Your task to perform on an android device: Go to calendar. Show me events next week Image 0: 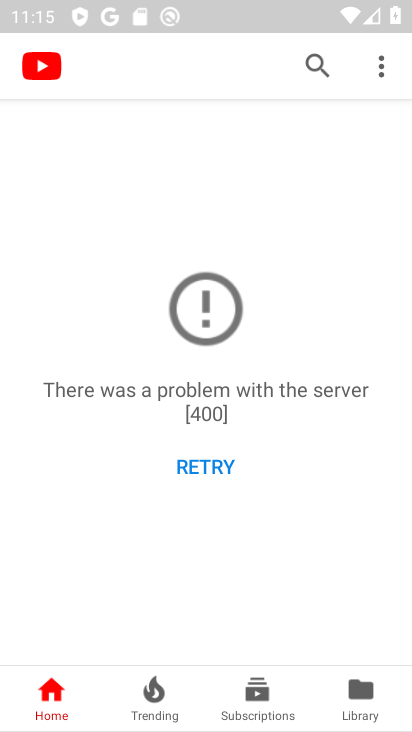
Step 0: press home button
Your task to perform on an android device: Go to calendar. Show me events next week Image 1: 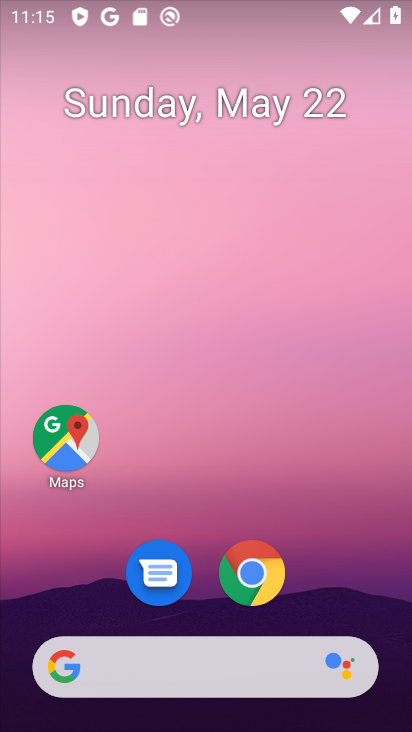
Step 1: drag from (146, 656) to (314, 83)
Your task to perform on an android device: Go to calendar. Show me events next week Image 2: 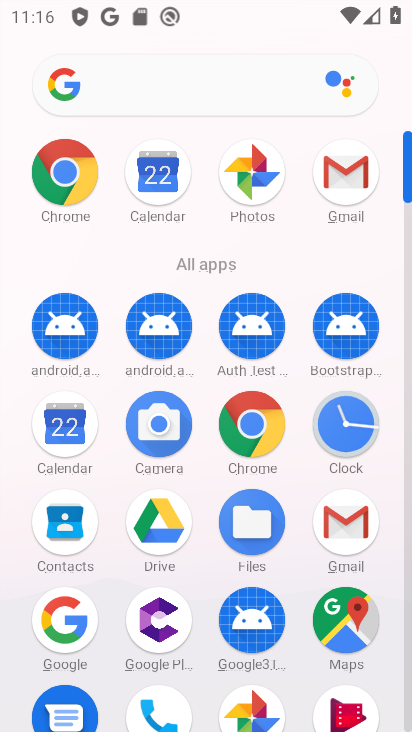
Step 2: click (153, 182)
Your task to perform on an android device: Go to calendar. Show me events next week Image 3: 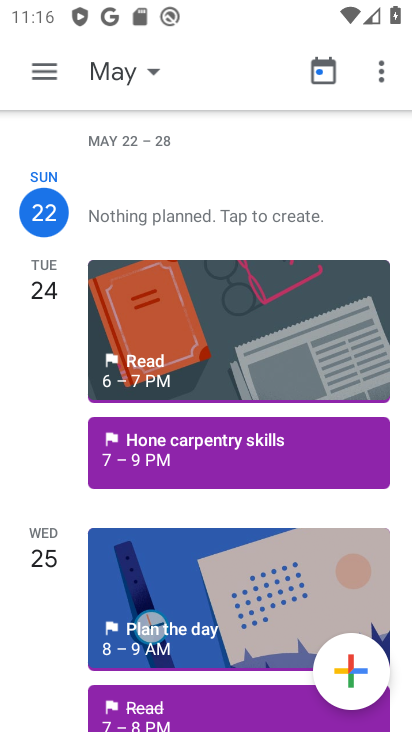
Step 3: click (119, 72)
Your task to perform on an android device: Go to calendar. Show me events next week Image 4: 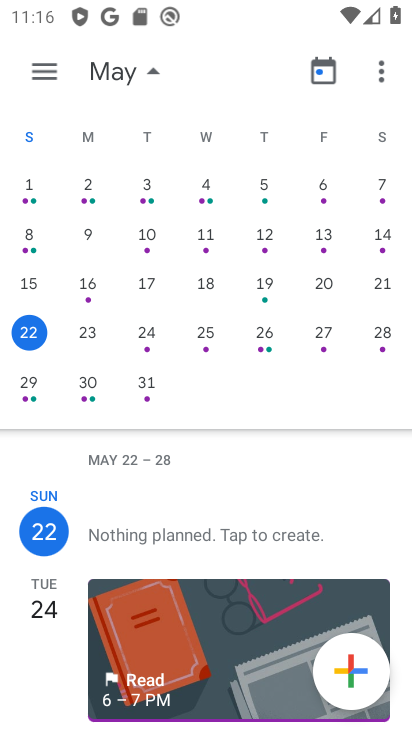
Step 4: click (34, 385)
Your task to perform on an android device: Go to calendar. Show me events next week Image 5: 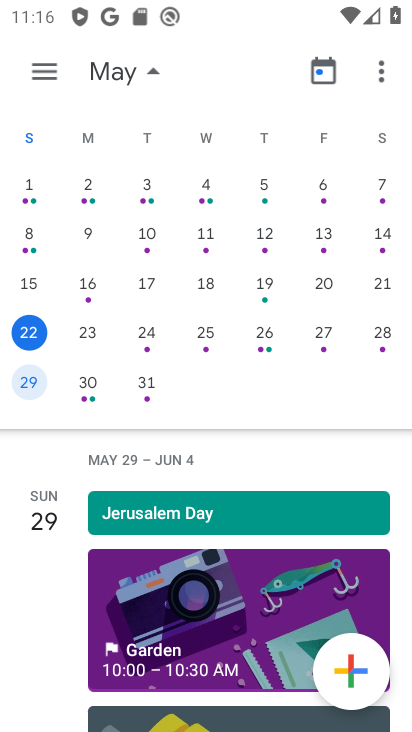
Step 5: click (52, 68)
Your task to perform on an android device: Go to calendar. Show me events next week Image 6: 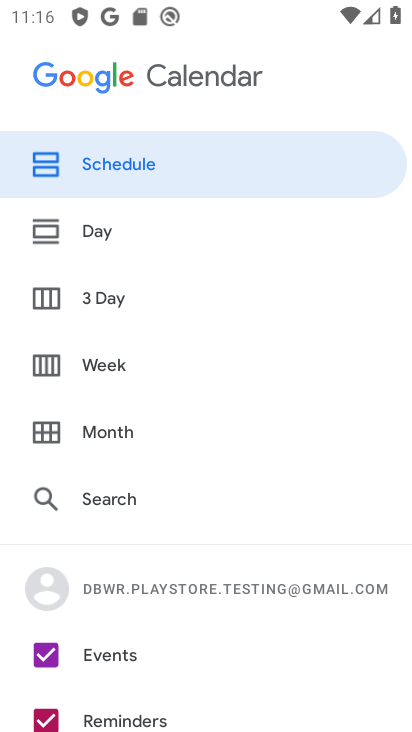
Step 6: click (100, 367)
Your task to perform on an android device: Go to calendar. Show me events next week Image 7: 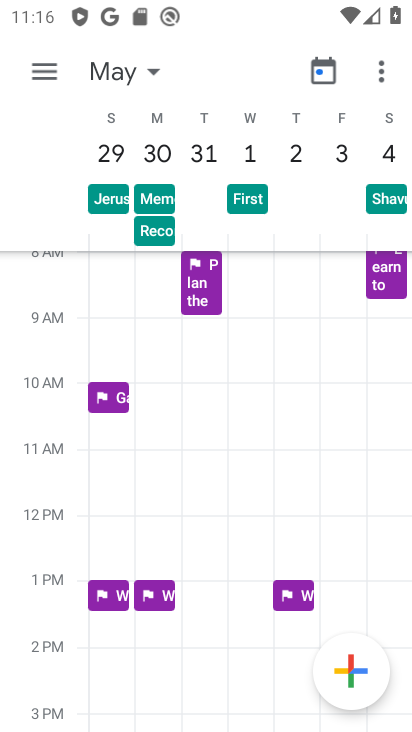
Step 7: click (59, 65)
Your task to perform on an android device: Go to calendar. Show me events next week Image 8: 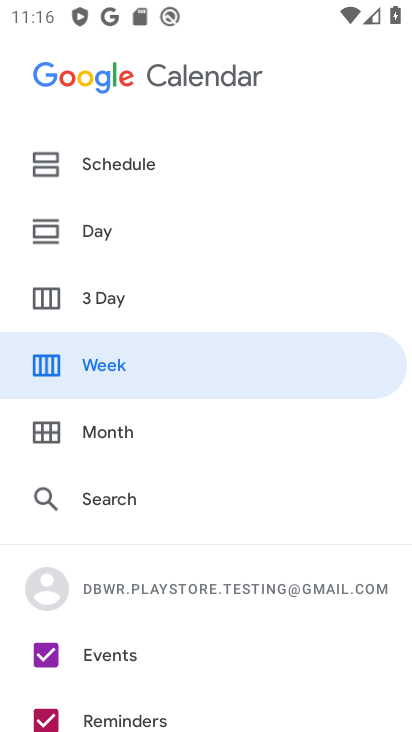
Step 8: click (109, 161)
Your task to perform on an android device: Go to calendar. Show me events next week Image 9: 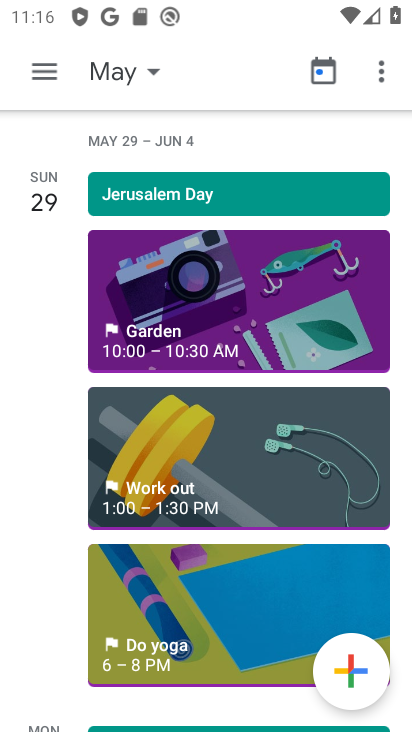
Step 9: task complete